Your task to perform on an android device: turn on wifi Image 0: 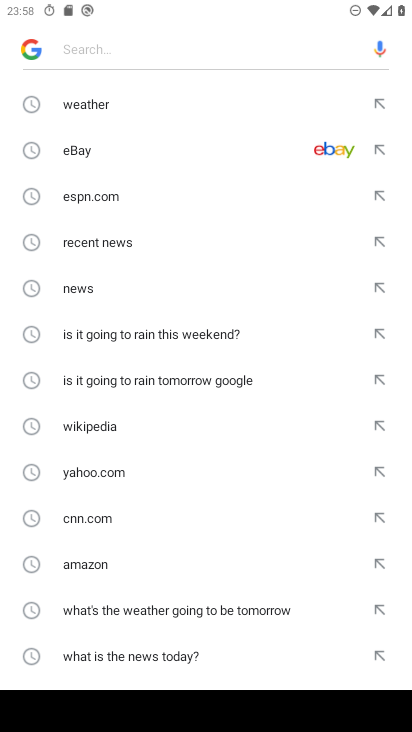
Step 0: click (68, 284)
Your task to perform on an android device: turn on wifi Image 1: 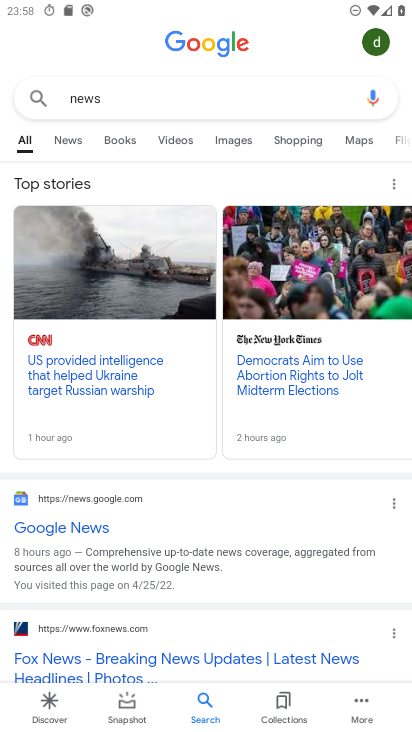
Step 1: click (68, 145)
Your task to perform on an android device: turn on wifi Image 2: 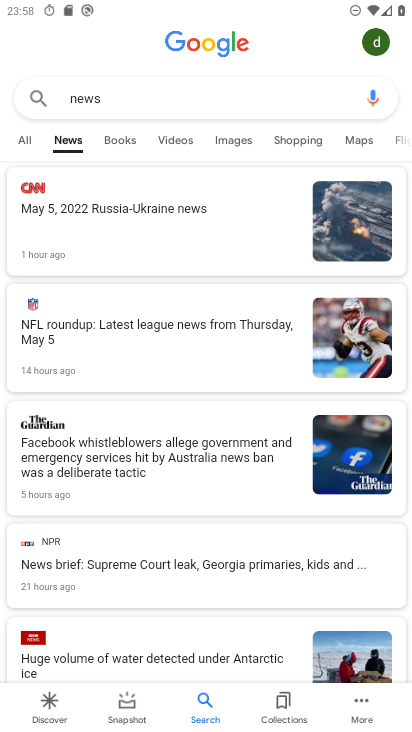
Step 2: task complete